Your task to perform on an android device: check out phone information Image 0: 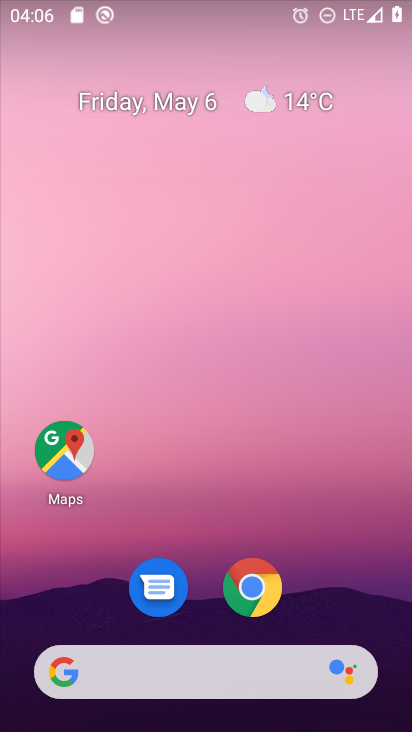
Step 0: drag from (332, 596) to (281, 32)
Your task to perform on an android device: check out phone information Image 1: 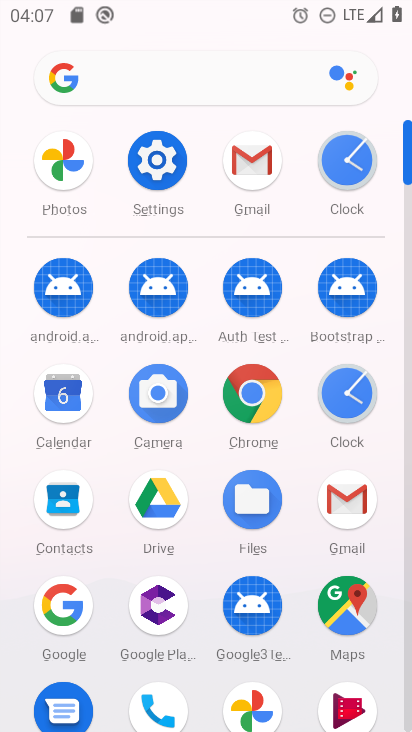
Step 1: click (157, 156)
Your task to perform on an android device: check out phone information Image 2: 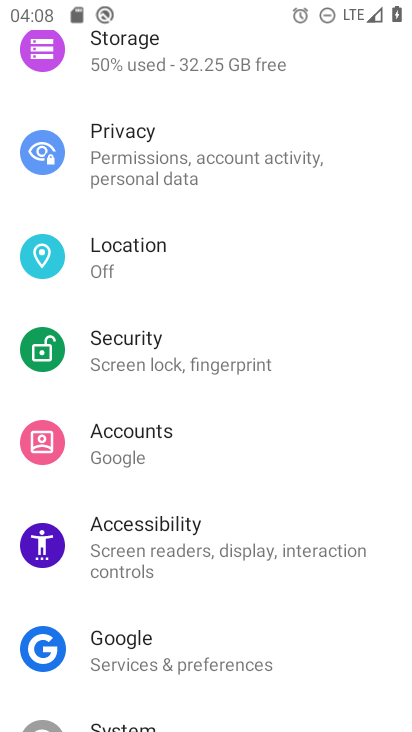
Step 2: drag from (254, 628) to (254, 55)
Your task to perform on an android device: check out phone information Image 3: 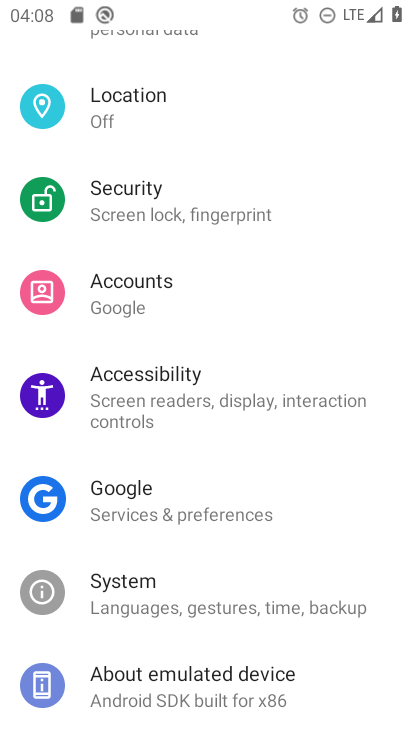
Step 3: drag from (227, 648) to (246, 169)
Your task to perform on an android device: check out phone information Image 4: 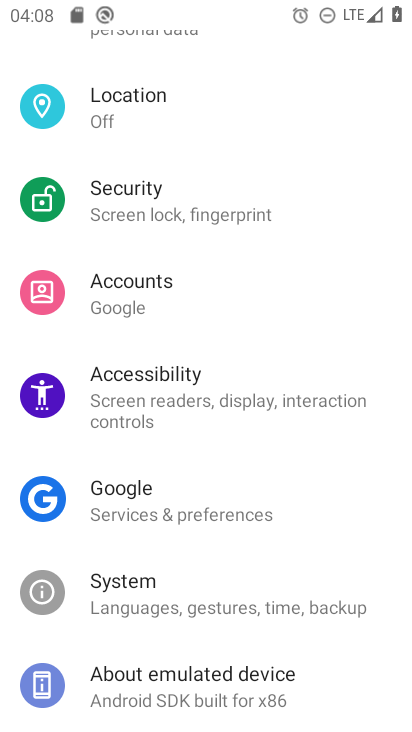
Step 4: click (166, 685)
Your task to perform on an android device: check out phone information Image 5: 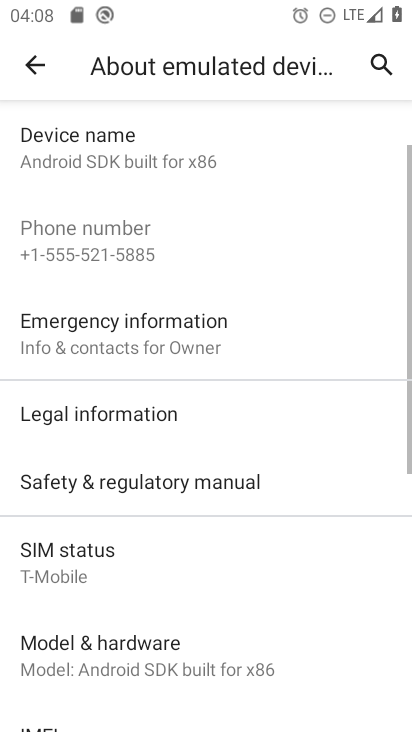
Step 5: click (226, 684)
Your task to perform on an android device: check out phone information Image 6: 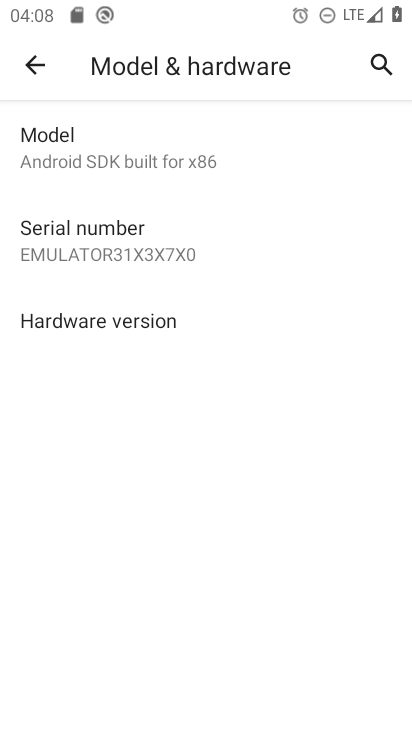
Step 6: click (174, 681)
Your task to perform on an android device: check out phone information Image 7: 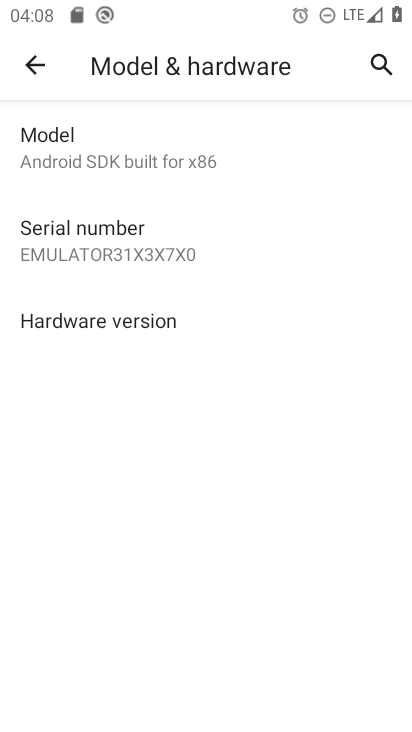
Step 7: task complete